Your task to perform on an android device: turn on data saver in the chrome app Image 0: 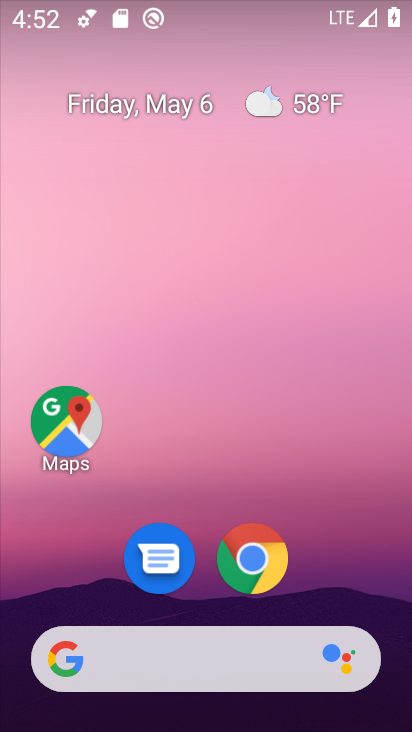
Step 0: drag from (323, 444) to (328, 27)
Your task to perform on an android device: turn on data saver in the chrome app Image 1: 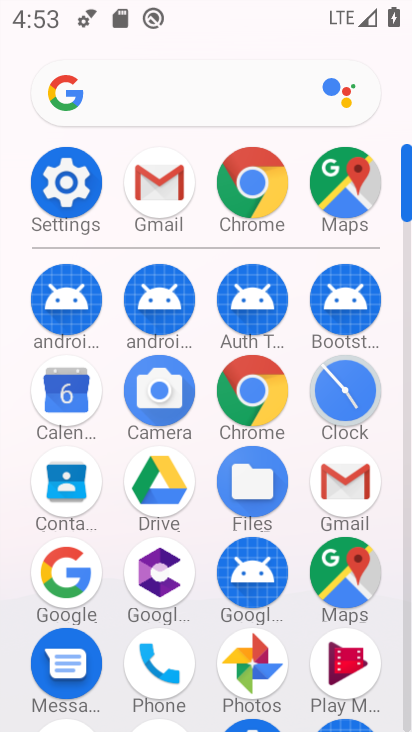
Step 1: click (244, 397)
Your task to perform on an android device: turn on data saver in the chrome app Image 2: 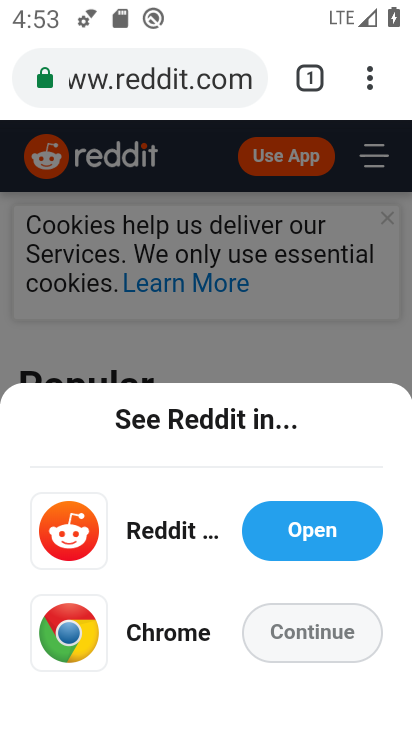
Step 2: click (359, 77)
Your task to perform on an android device: turn on data saver in the chrome app Image 3: 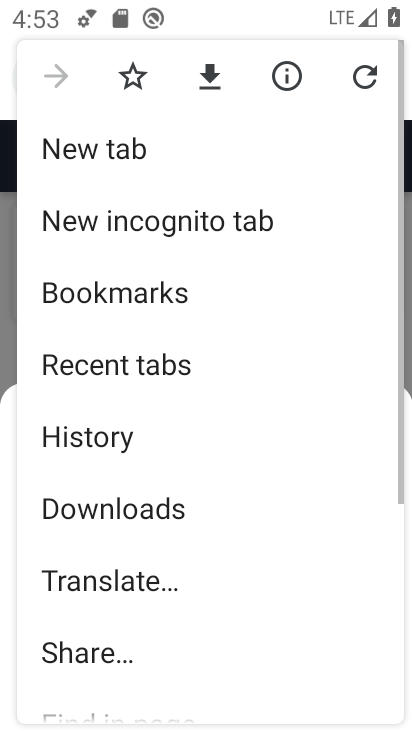
Step 3: drag from (230, 681) to (212, 99)
Your task to perform on an android device: turn on data saver in the chrome app Image 4: 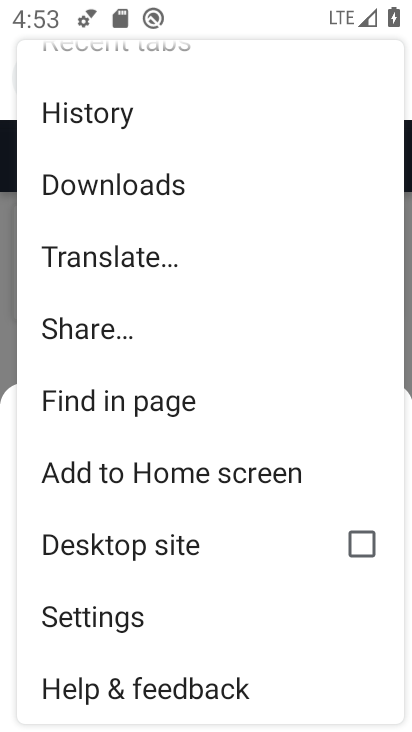
Step 4: click (174, 619)
Your task to perform on an android device: turn on data saver in the chrome app Image 5: 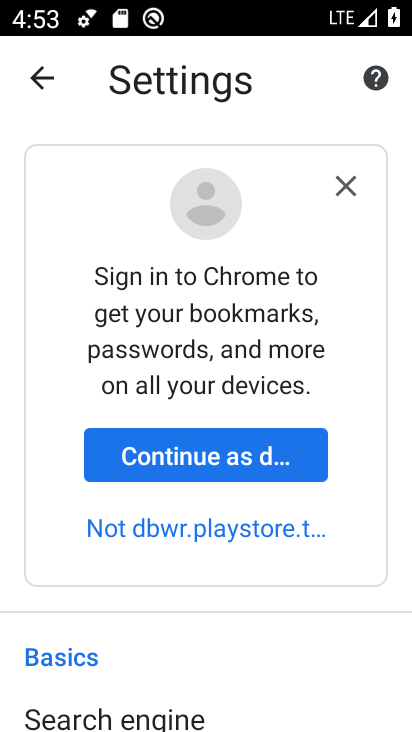
Step 5: drag from (305, 688) to (294, 135)
Your task to perform on an android device: turn on data saver in the chrome app Image 6: 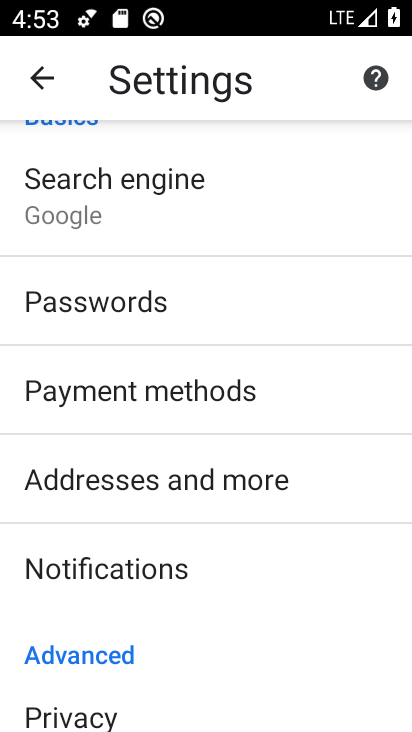
Step 6: drag from (250, 665) to (198, 180)
Your task to perform on an android device: turn on data saver in the chrome app Image 7: 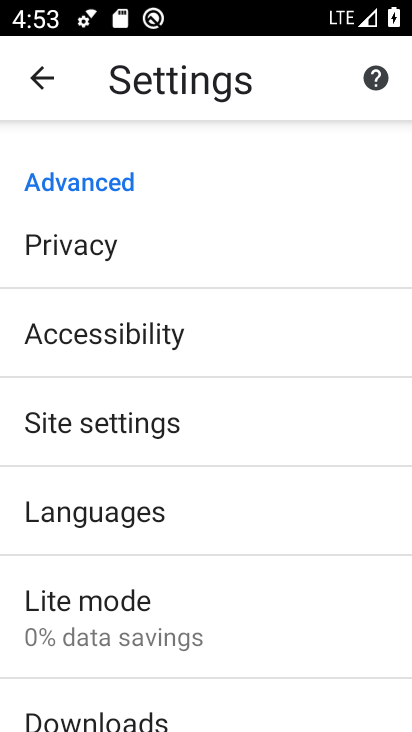
Step 7: click (112, 615)
Your task to perform on an android device: turn on data saver in the chrome app Image 8: 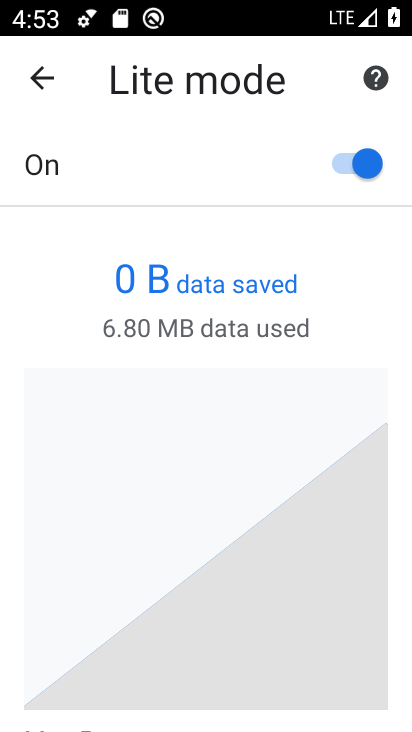
Step 8: task complete